Your task to perform on an android device: Search for Italian restaurants on Maps Image 0: 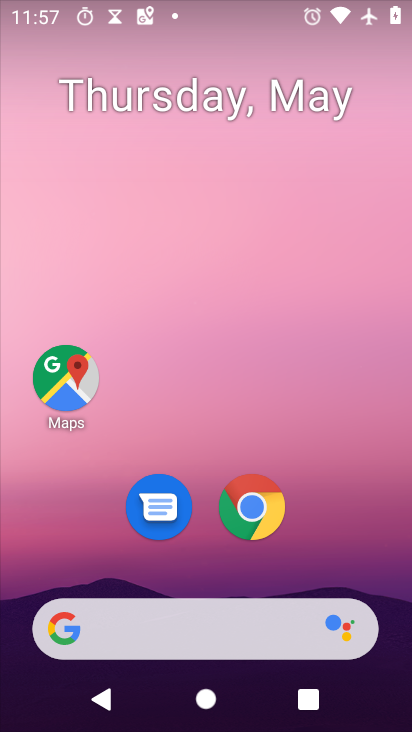
Step 0: drag from (352, 556) to (336, 17)
Your task to perform on an android device: Search for Italian restaurants on Maps Image 1: 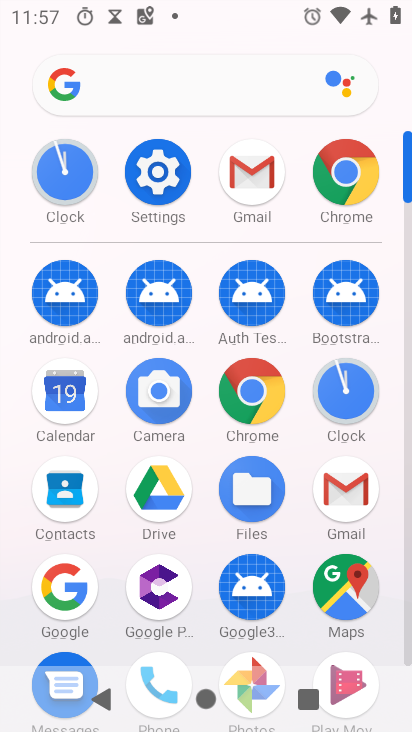
Step 1: drag from (6, 610) to (2, 297)
Your task to perform on an android device: Search for Italian restaurants on Maps Image 2: 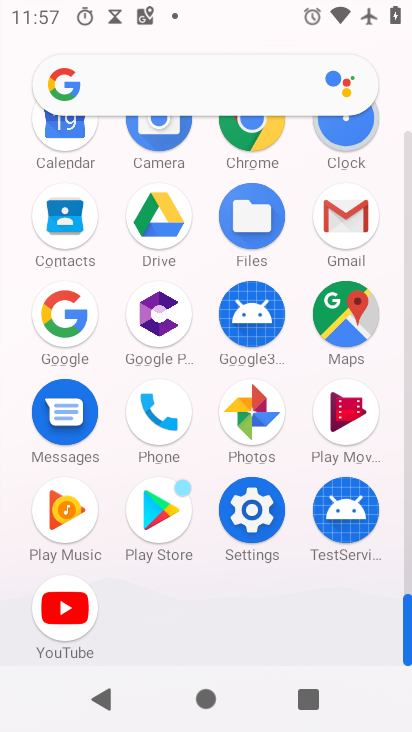
Step 2: click (346, 310)
Your task to perform on an android device: Search for Italian restaurants on Maps Image 3: 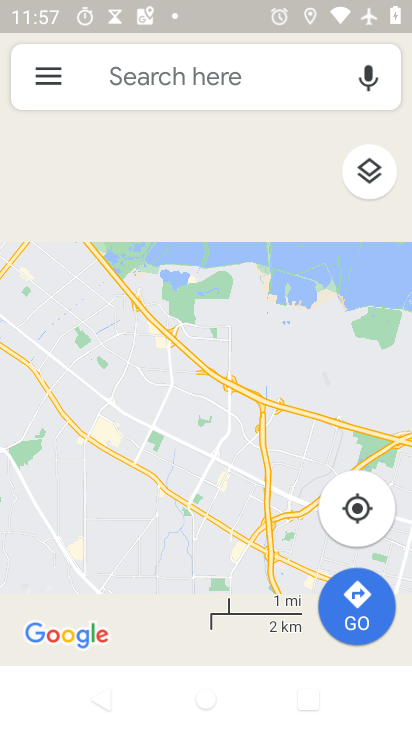
Step 3: click (250, 72)
Your task to perform on an android device: Search for Italian restaurants on Maps Image 4: 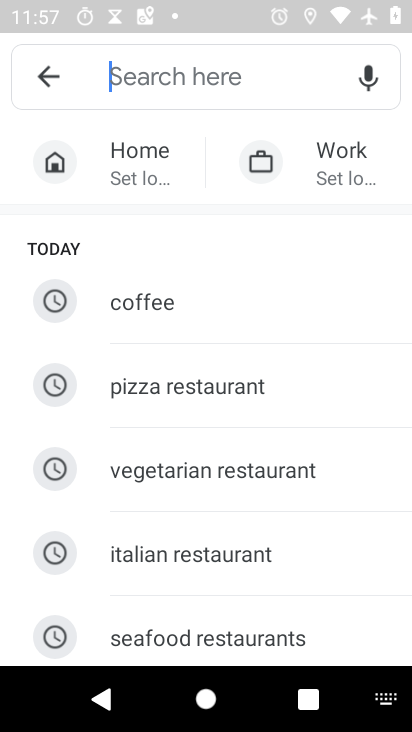
Step 4: click (215, 563)
Your task to perform on an android device: Search for Italian restaurants on Maps Image 5: 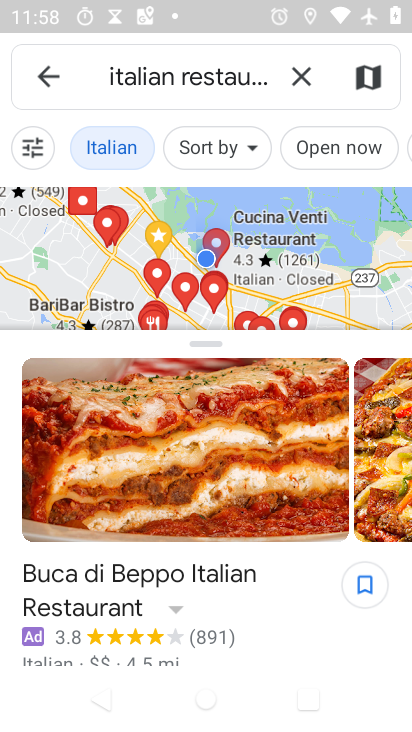
Step 5: task complete